Your task to perform on an android device: Go to CNN.com Image 0: 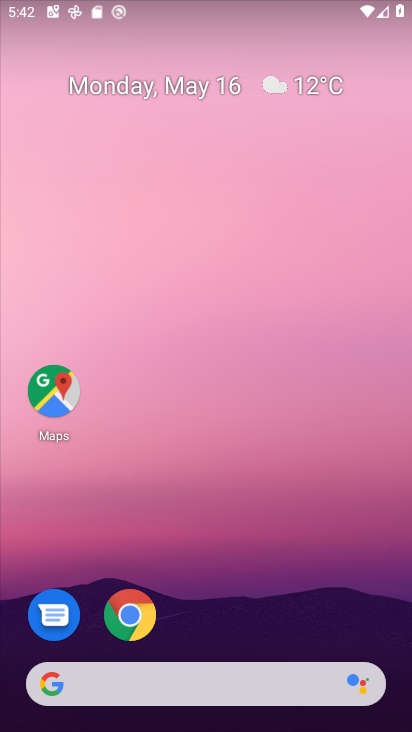
Step 0: click (129, 618)
Your task to perform on an android device: Go to CNN.com Image 1: 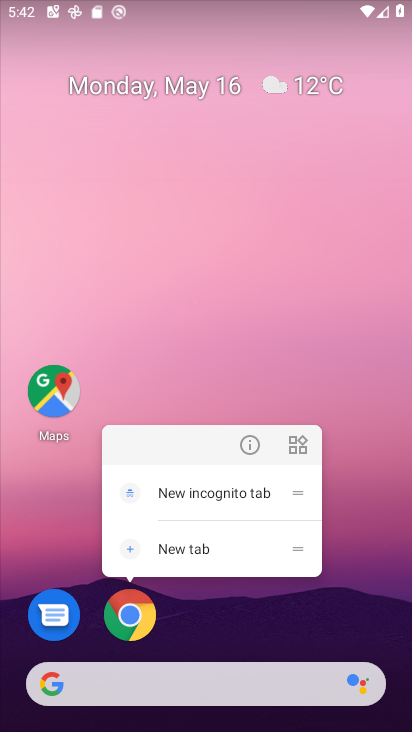
Step 1: click (132, 608)
Your task to perform on an android device: Go to CNN.com Image 2: 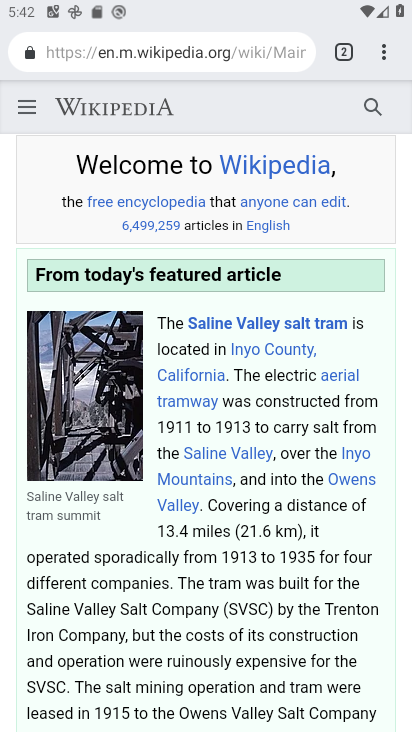
Step 2: click (223, 56)
Your task to perform on an android device: Go to CNN.com Image 3: 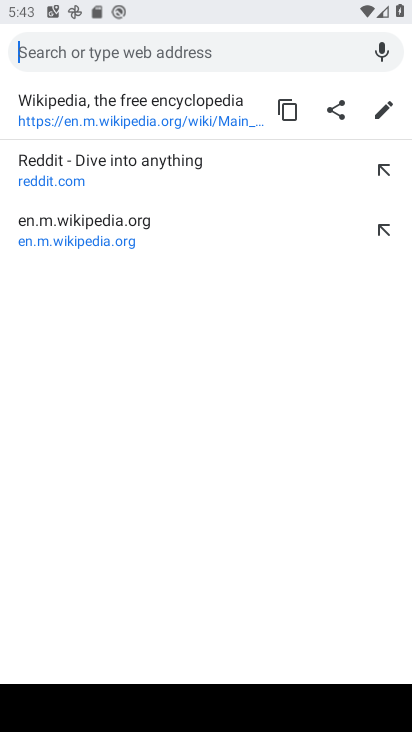
Step 3: type "www.cnn.com"
Your task to perform on an android device: Go to CNN.com Image 4: 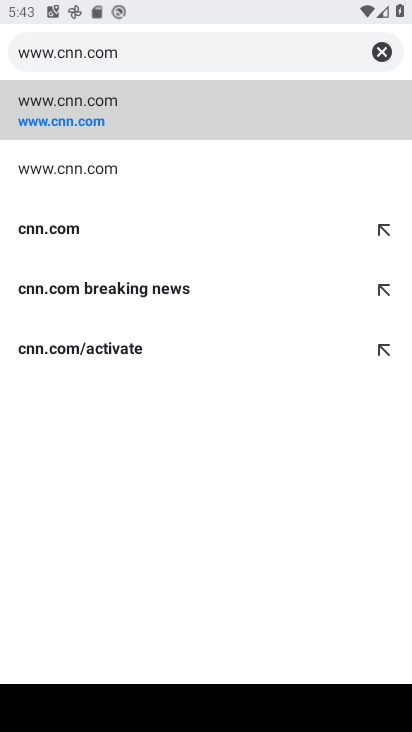
Step 4: click (104, 106)
Your task to perform on an android device: Go to CNN.com Image 5: 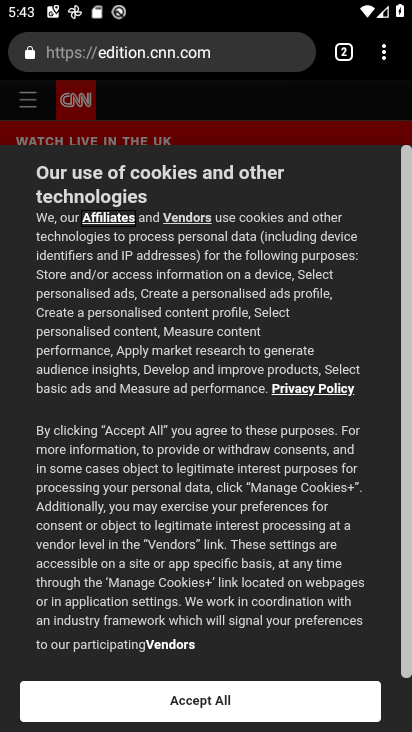
Step 5: task complete